Your task to perform on an android device: Show me productivity apps on the Play Store Image 0: 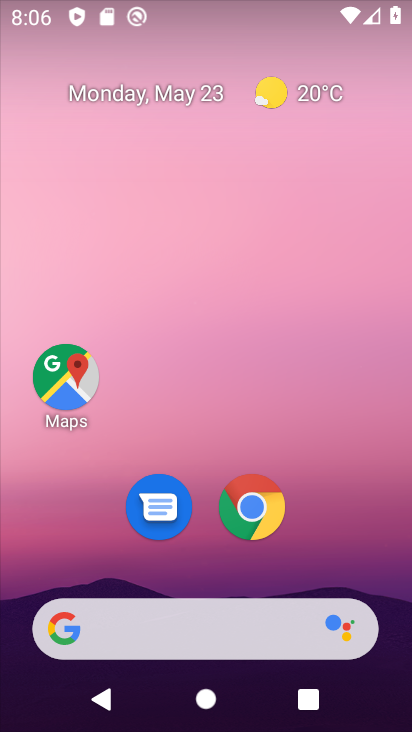
Step 0: drag from (373, 601) to (352, 6)
Your task to perform on an android device: Show me productivity apps on the Play Store Image 1: 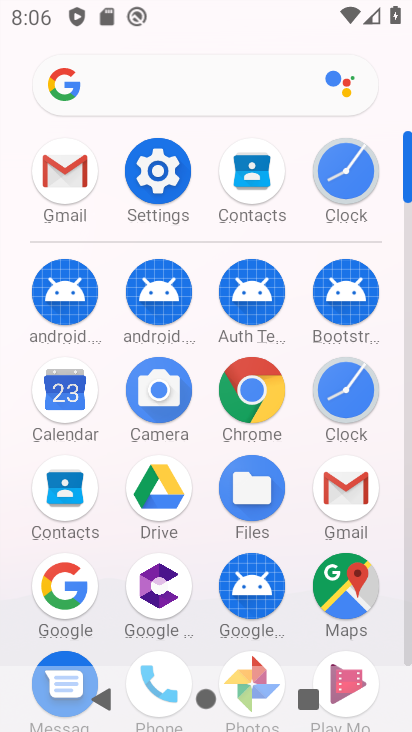
Step 1: click (407, 516)
Your task to perform on an android device: Show me productivity apps on the Play Store Image 2: 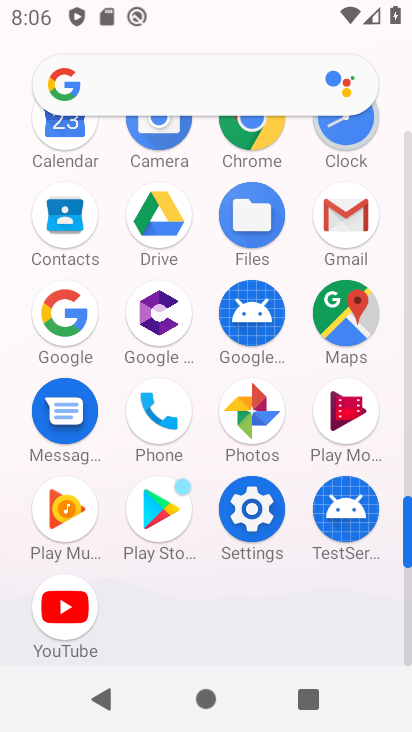
Step 2: click (167, 507)
Your task to perform on an android device: Show me productivity apps on the Play Store Image 3: 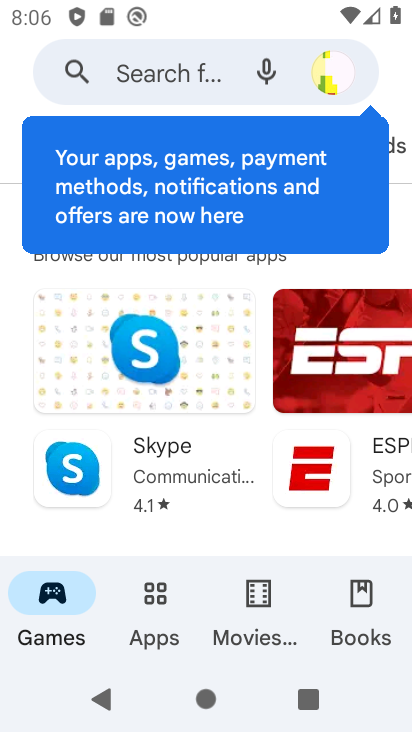
Step 3: click (154, 625)
Your task to perform on an android device: Show me productivity apps on the Play Store Image 4: 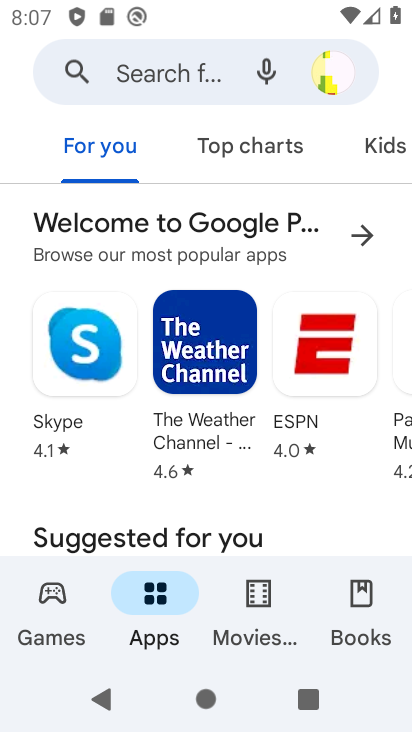
Step 4: drag from (170, 162) to (6, 176)
Your task to perform on an android device: Show me productivity apps on the Play Store Image 5: 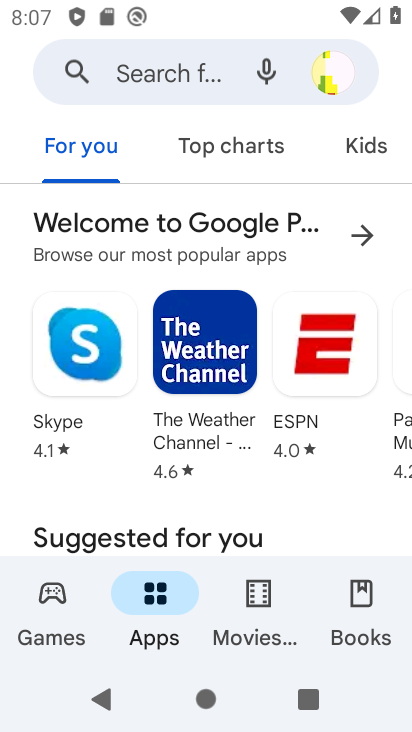
Step 5: drag from (379, 155) to (42, 190)
Your task to perform on an android device: Show me productivity apps on the Play Store Image 6: 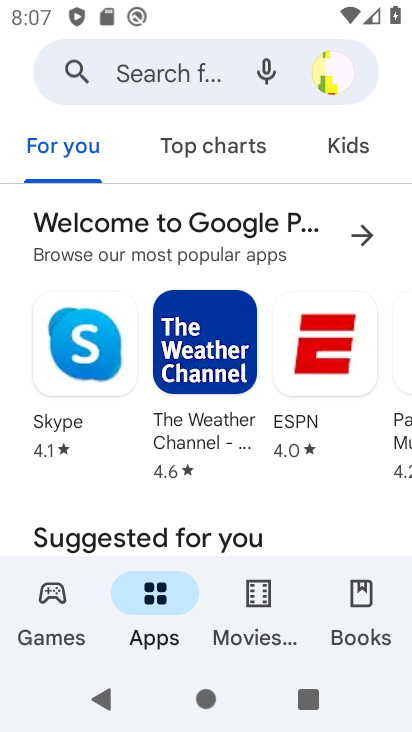
Step 6: drag from (347, 145) to (9, 130)
Your task to perform on an android device: Show me productivity apps on the Play Store Image 7: 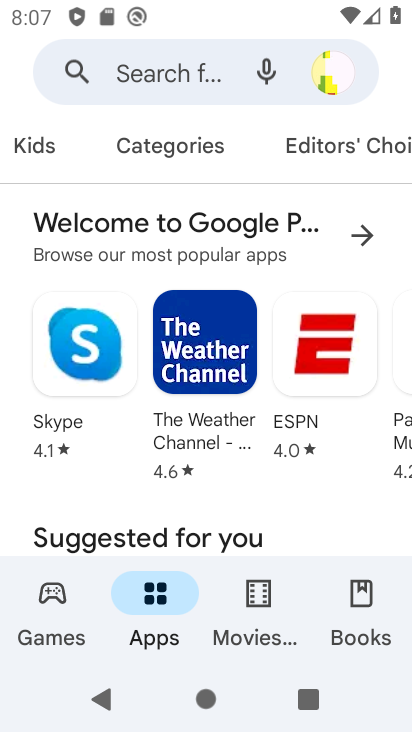
Step 7: click (185, 151)
Your task to perform on an android device: Show me productivity apps on the Play Store Image 8: 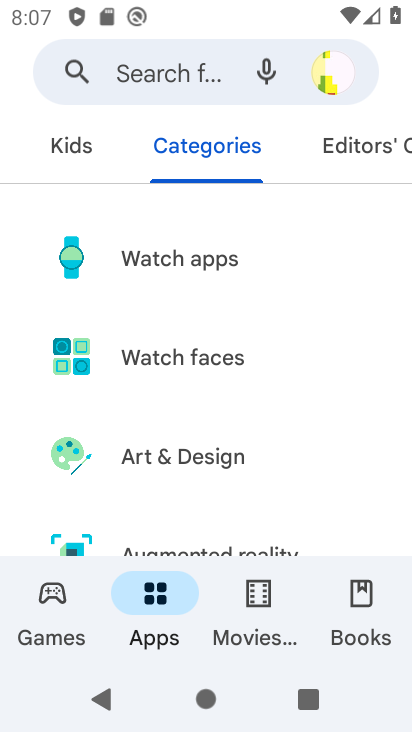
Step 8: drag from (370, 503) to (333, 139)
Your task to perform on an android device: Show me productivity apps on the Play Store Image 9: 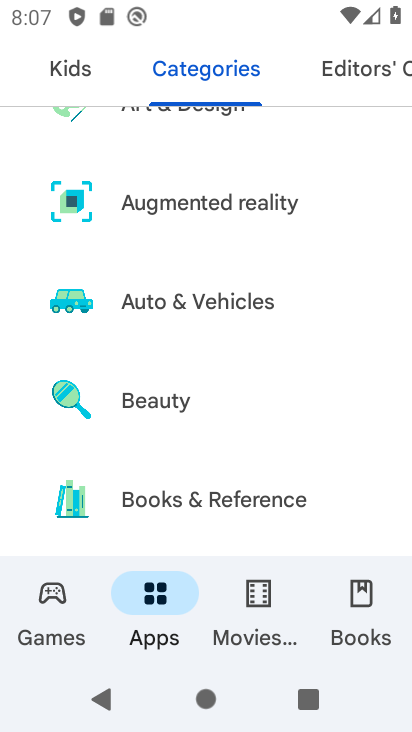
Step 9: drag from (298, 438) to (296, 113)
Your task to perform on an android device: Show me productivity apps on the Play Store Image 10: 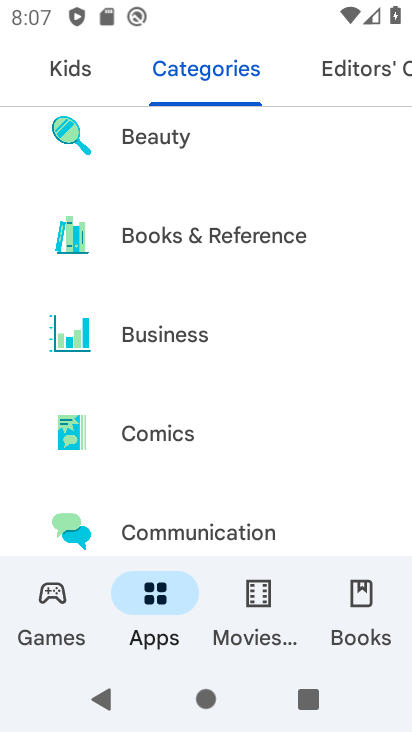
Step 10: drag from (291, 427) to (268, 101)
Your task to perform on an android device: Show me productivity apps on the Play Store Image 11: 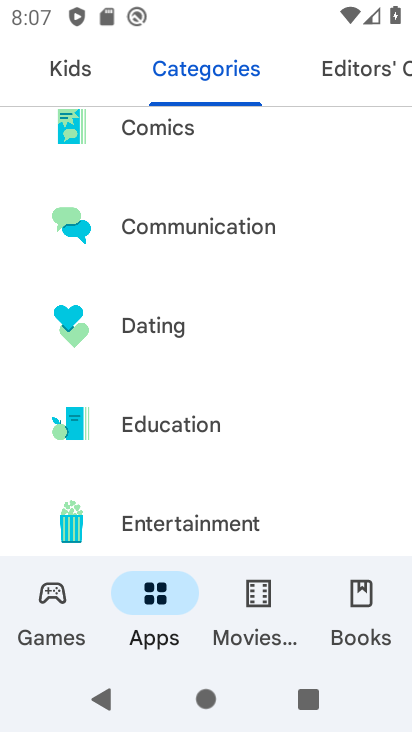
Step 11: drag from (283, 459) to (264, 169)
Your task to perform on an android device: Show me productivity apps on the Play Store Image 12: 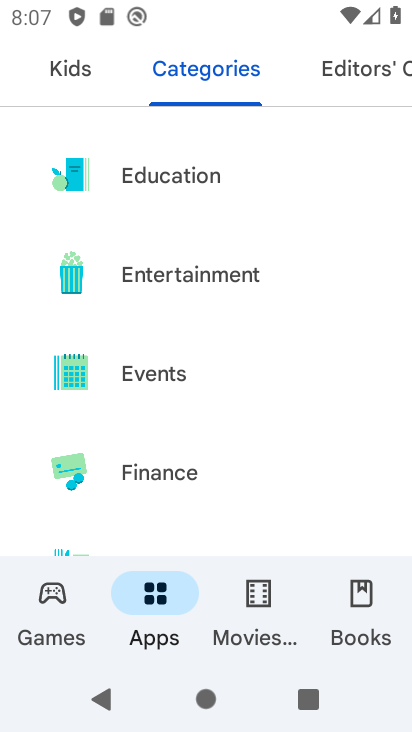
Step 12: drag from (282, 466) to (283, 135)
Your task to perform on an android device: Show me productivity apps on the Play Store Image 13: 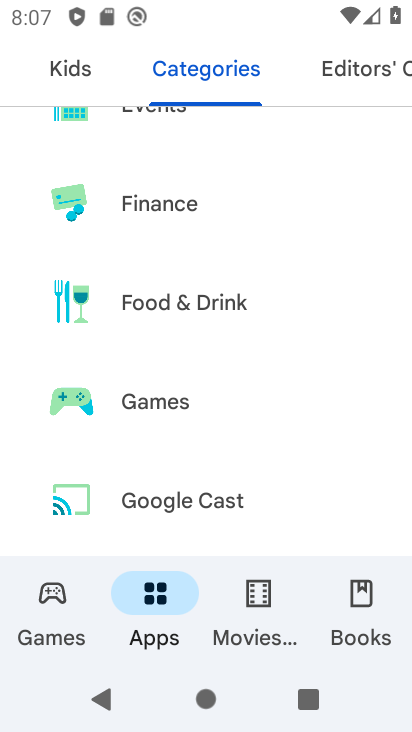
Step 13: drag from (255, 464) to (266, 154)
Your task to perform on an android device: Show me productivity apps on the Play Store Image 14: 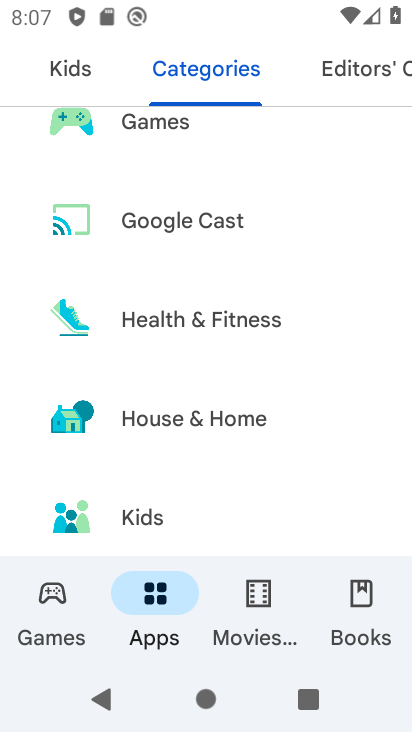
Step 14: drag from (254, 423) to (259, 115)
Your task to perform on an android device: Show me productivity apps on the Play Store Image 15: 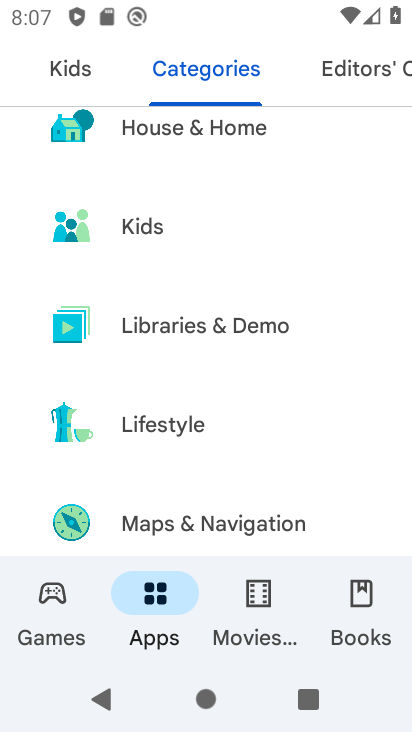
Step 15: drag from (275, 394) to (263, 148)
Your task to perform on an android device: Show me productivity apps on the Play Store Image 16: 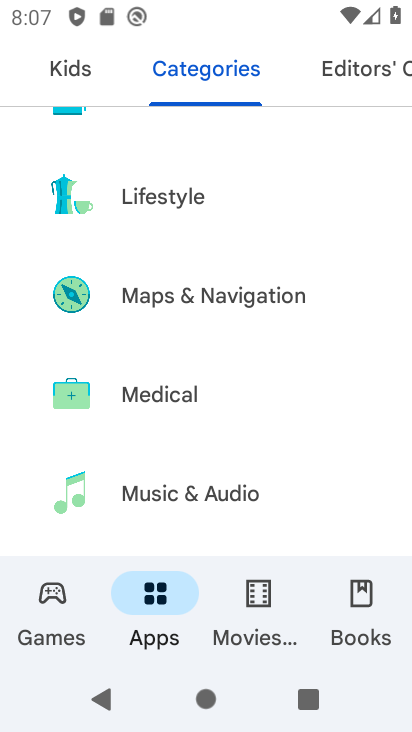
Step 16: drag from (246, 430) to (234, 118)
Your task to perform on an android device: Show me productivity apps on the Play Store Image 17: 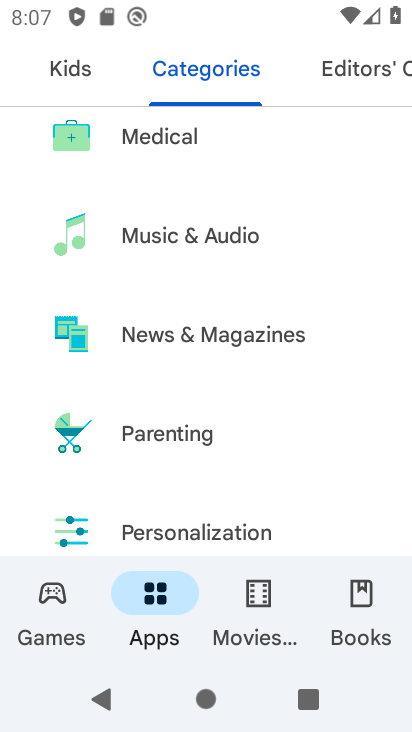
Step 17: drag from (254, 447) to (242, 166)
Your task to perform on an android device: Show me productivity apps on the Play Store Image 18: 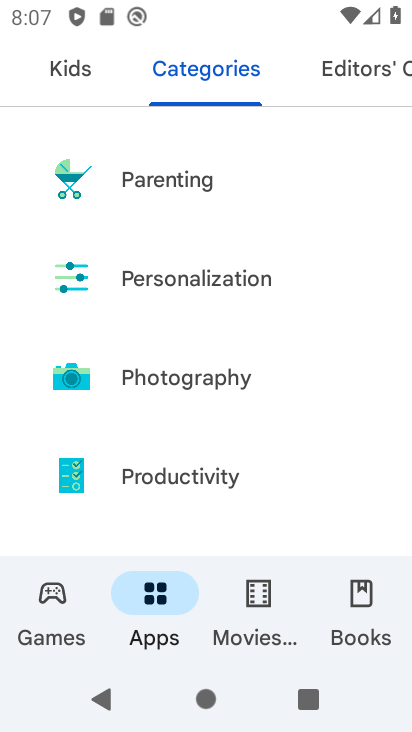
Step 18: click (177, 477)
Your task to perform on an android device: Show me productivity apps on the Play Store Image 19: 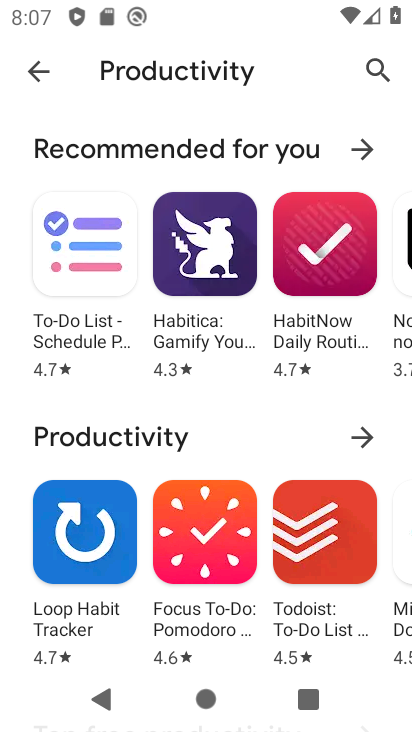
Step 19: task complete